Your task to perform on an android device: turn off picture-in-picture Image 0: 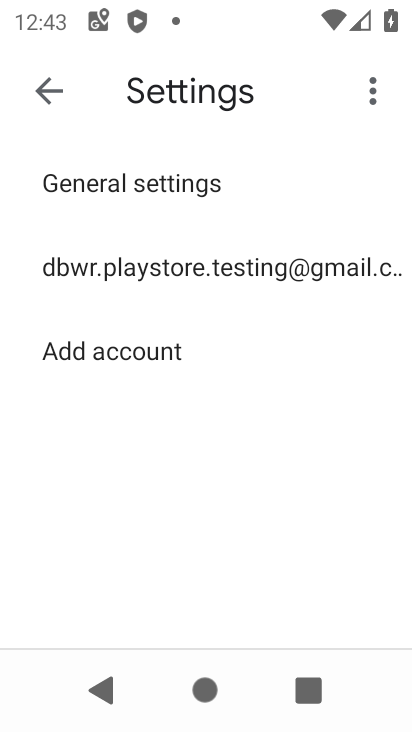
Step 0: press home button
Your task to perform on an android device: turn off picture-in-picture Image 1: 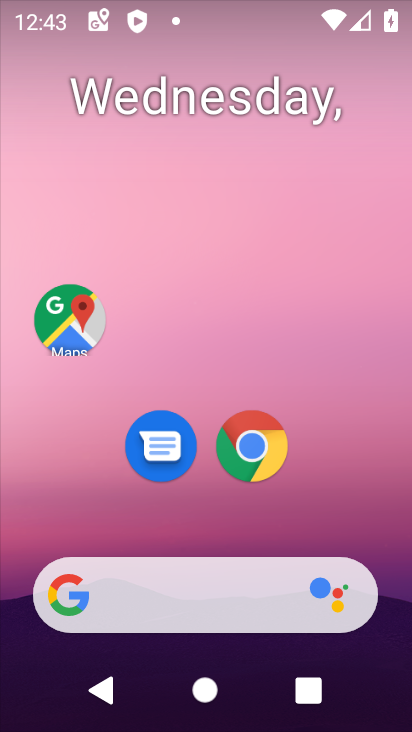
Step 1: drag from (215, 533) to (231, 191)
Your task to perform on an android device: turn off picture-in-picture Image 2: 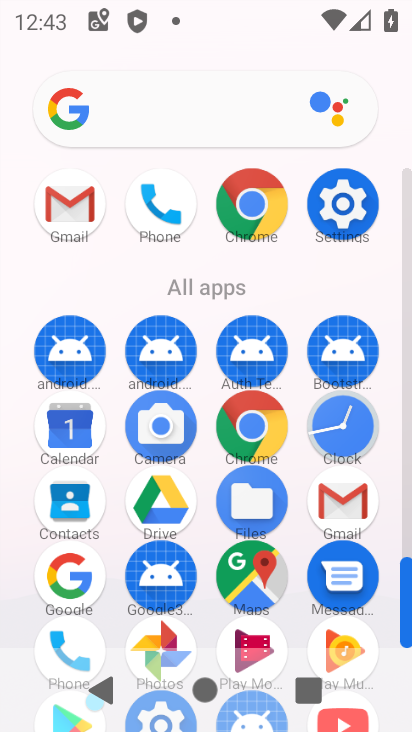
Step 2: drag from (294, 301) to (286, 76)
Your task to perform on an android device: turn off picture-in-picture Image 3: 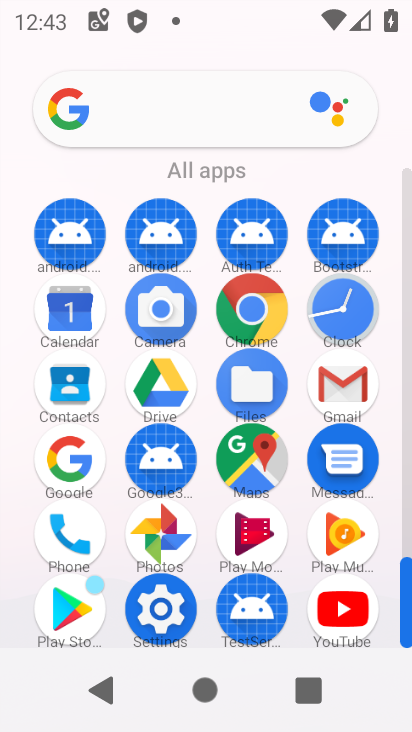
Step 3: click (157, 616)
Your task to perform on an android device: turn off picture-in-picture Image 4: 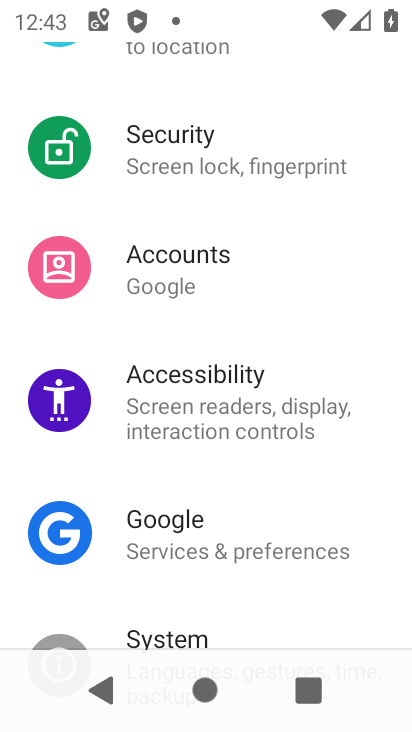
Step 4: drag from (252, 242) to (250, 603)
Your task to perform on an android device: turn off picture-in-picture Image 5: 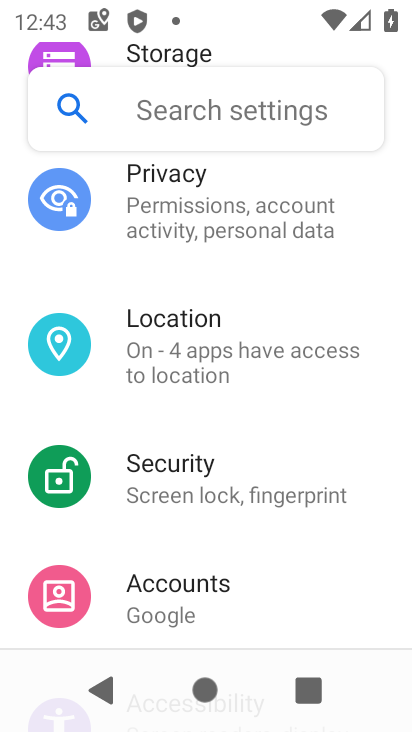
Step 5: drag from (251, 281) to (268, 623)
Your task to perform on an android device: turn off picture-in-picture Image 6: 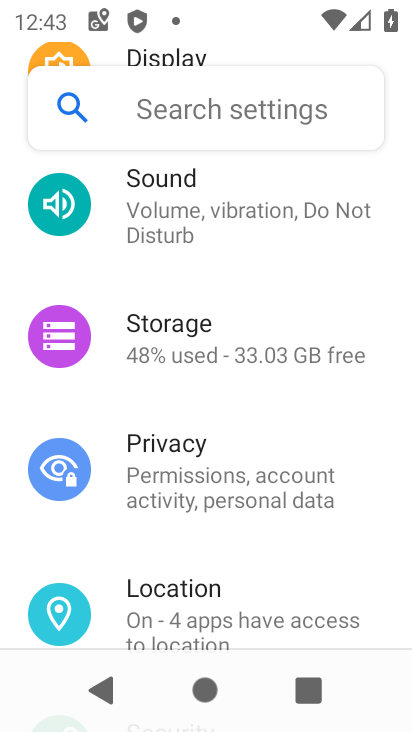
Step 6: drag from (249, 265) to (255, 647)
Your task to perform on an android device: turn off picture-in-picture Image 7: 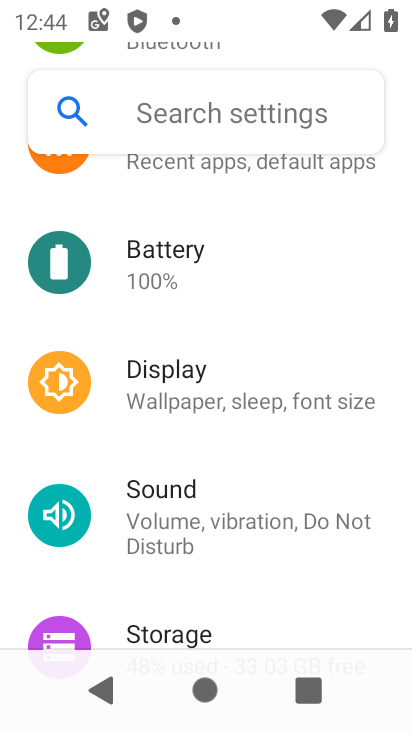
Step 7: drag from (263, 353) to (261, 709)
Your task to perform on an android device: turn off picture-in-picture Image 8: 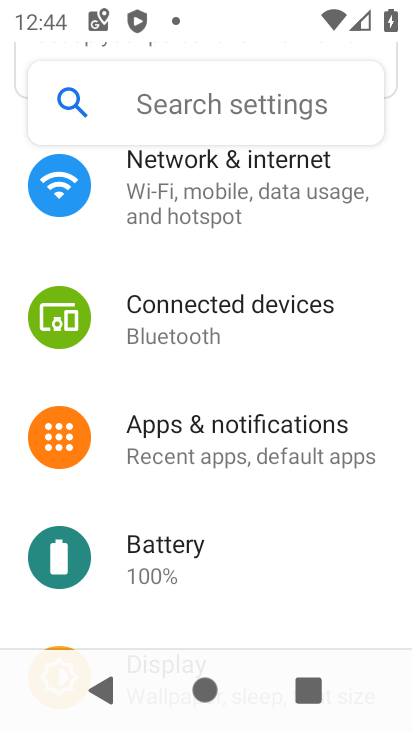
Step 8: click (260, 436)
Your task to perform on an android device: turn off picture-in-picture Image 9: 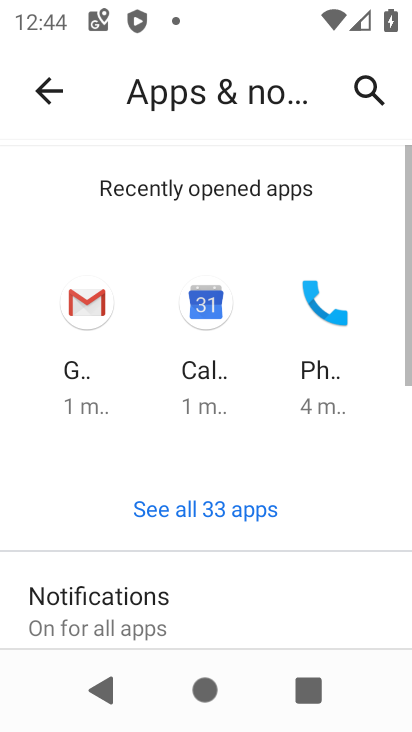
Step 9: drag from (197, 586) to (191, 334)
Your task to perform on an android device: turn off picture-in-picture Image 10: 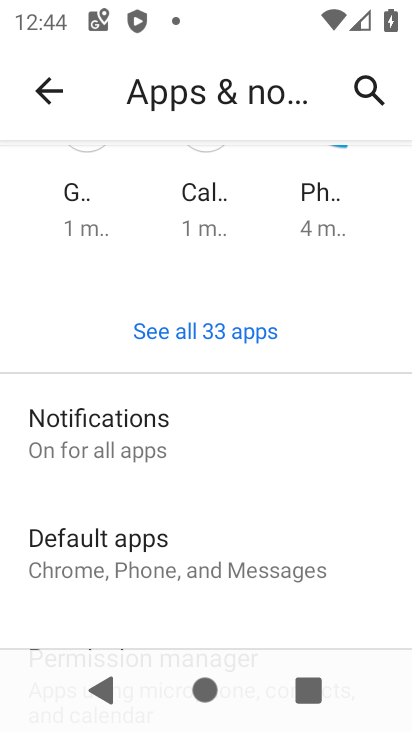
Step 10: drag from (199, 535) to (192, 299)
Your task to perform on an android device: turn off picture-in-picture Image 11: 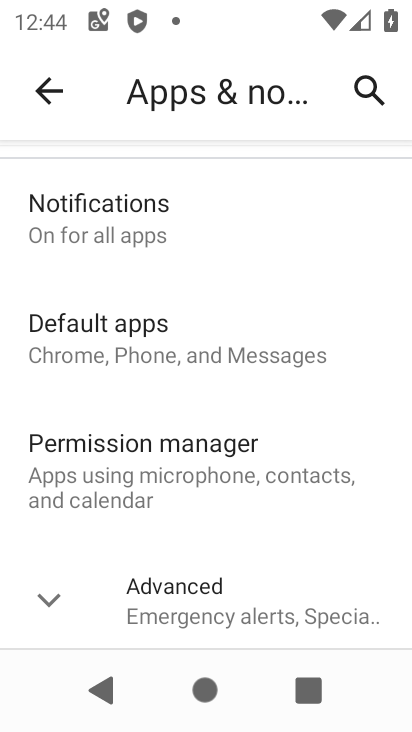
Step 11: click (195, 578)
Your task to perform on an android device: turn off picture-in-picture Image 12: 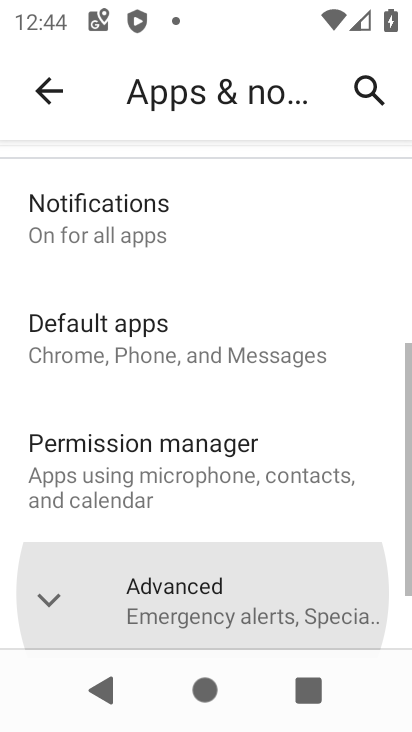
Step 12: drag from (191, 538) to (182, 167)
Your task to perform on an android device: turn off picture-in-picture Image 13: 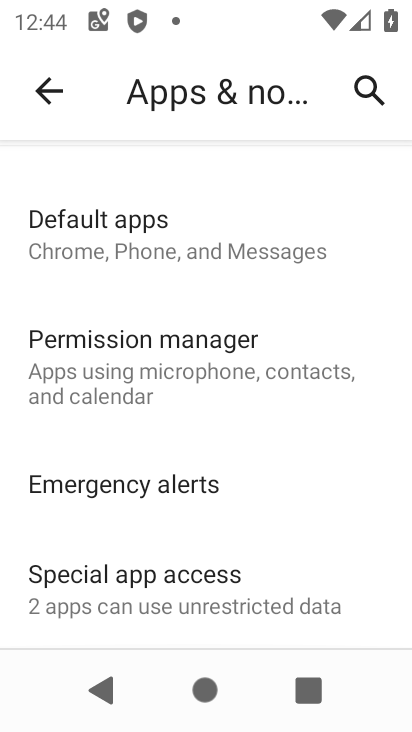
Step 13: click (195, 588)
Your task to perform on an android device: turn off picture-in-picture Image 14: 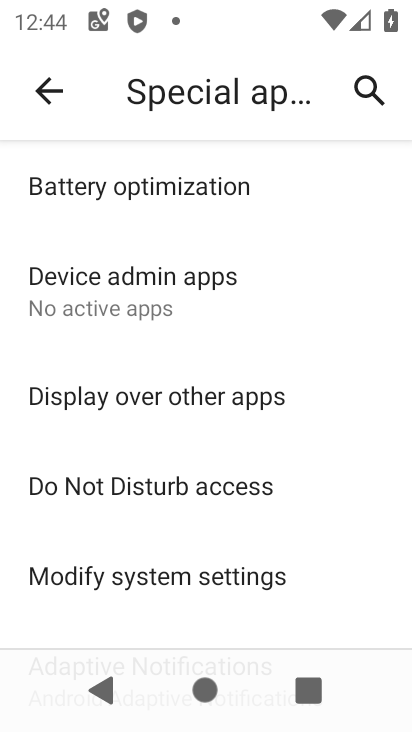
Step 14: drag from (192, 433) to (231, 70)
Your task to perform on an android device: turn off picture-in-picture Image 15: 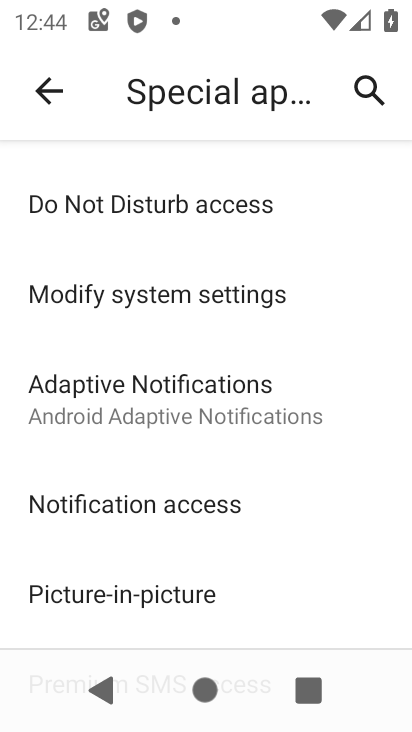
Step 15: click (193, 600)
Your task to perform on an android device: turn off picture-in-picture Image 16: 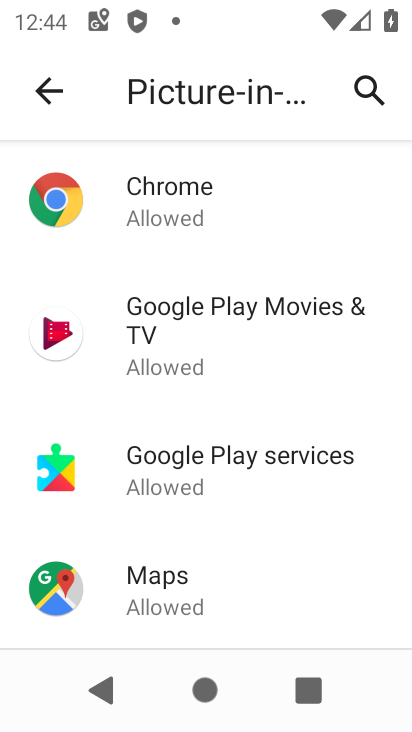
Step 16: click (205, 308)
Your task to perform on an android device: turn off picture-in-picture Image 17: 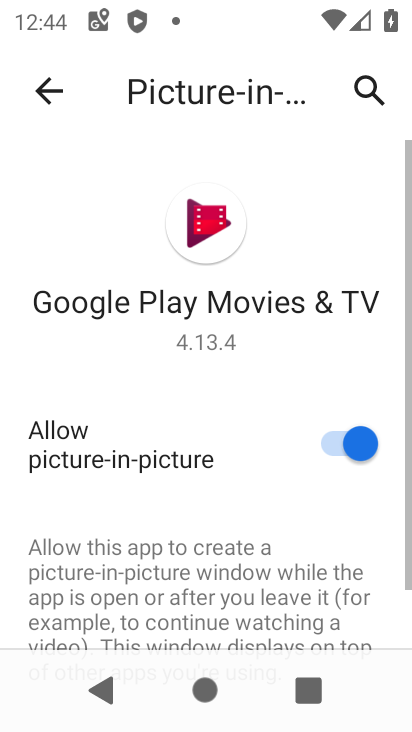
Step 17: click (363, 446)
Your task to perform on an android device: turn off picture-in-picture Image 18: 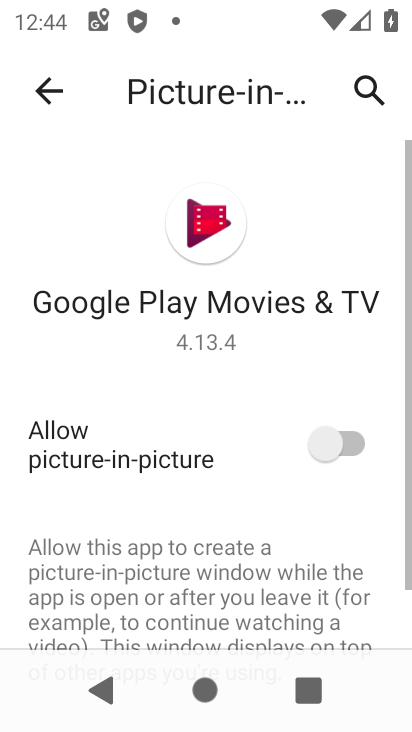
Step 18: task complete